Your task to perform on an android device: Open settings Image 0: 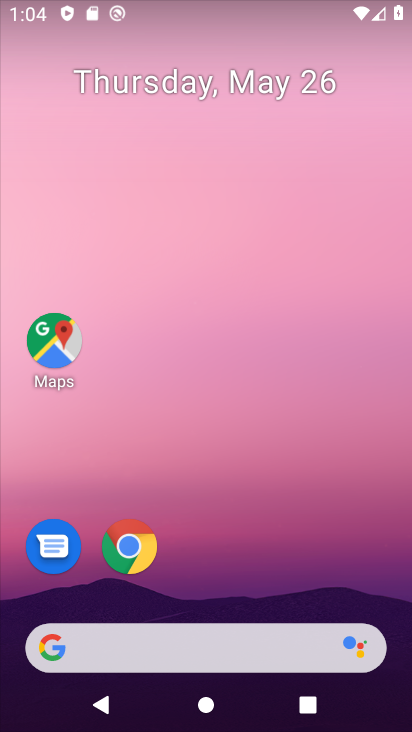
Step 0: drag from (205, 640) to (167, 131)
Your task to perform on an android device: Open settings Image 1: 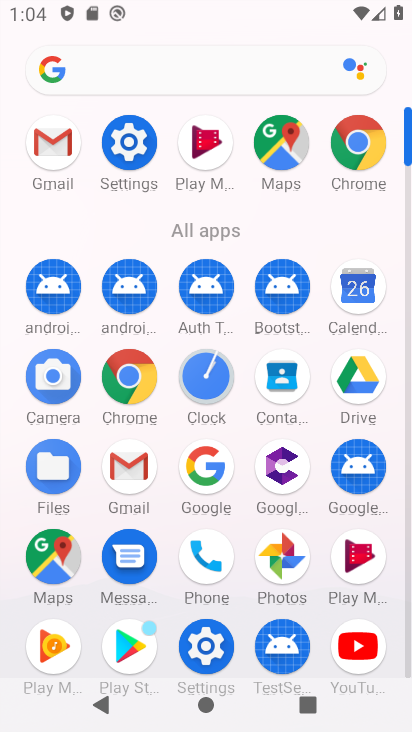
Step 1: click (118, 129)
Your task to perform on an android device: Open settings Image 2: 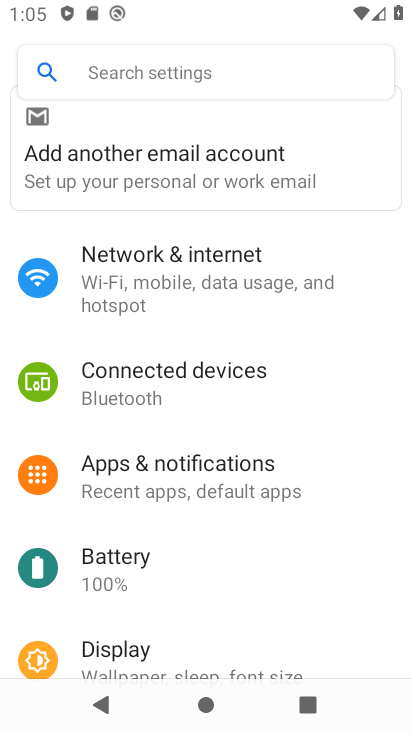
Step 2: task complete